Your task to perform on an android device: toggle improve location accuracy Image 0: 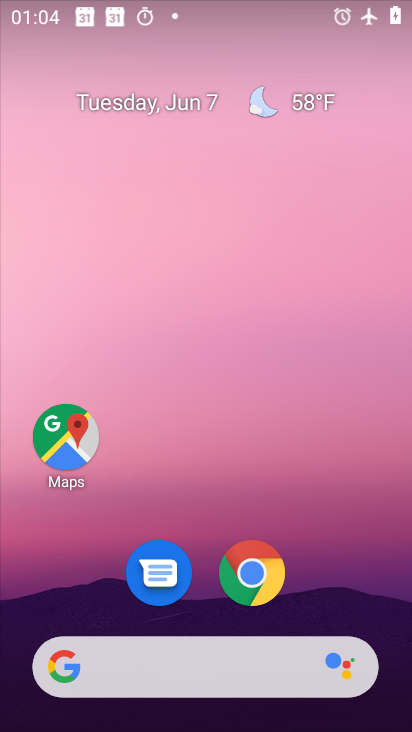
Step 0: press home button
Your task to perform on an android device: toggle improve location accuracy Image 1: 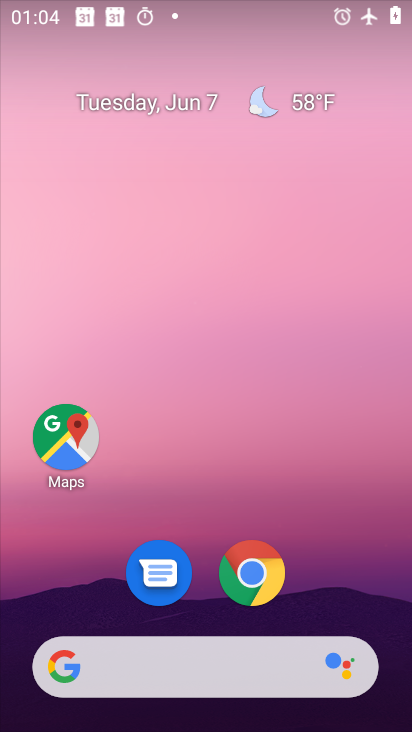
Step 1: drag from (389, 558) to (307, 0)
Your task to perform on an android device: toggle improve location accuracy Image 2: 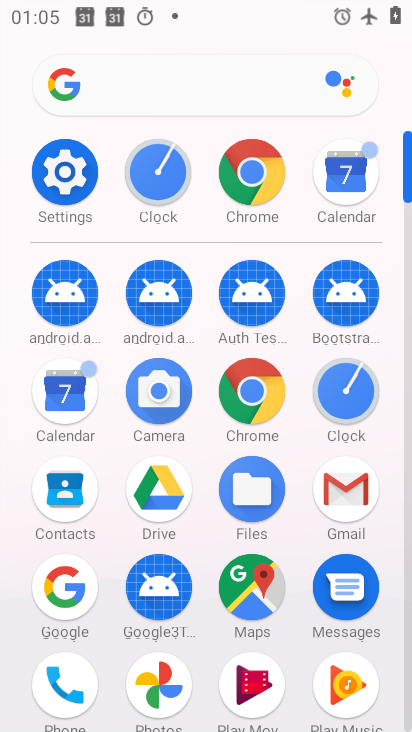
Step 2: click (47, 178)
Your task to perform on an android device: toggle improve location accuracy Image 3: 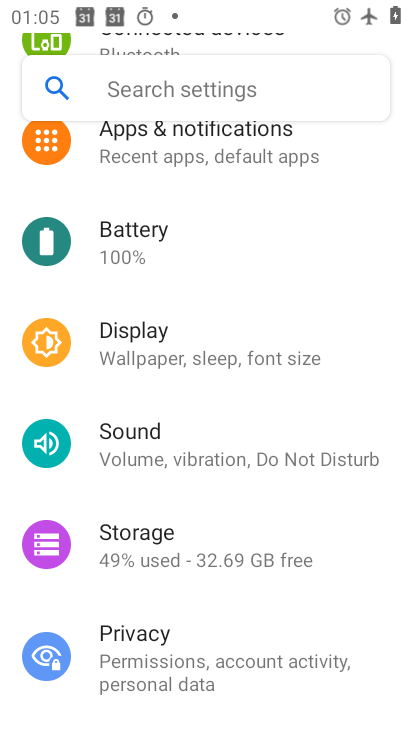
Step 3: drag from (195, 611) to (317, 83)
Your task to perform on an android device: toggle improve location accuracy Image 4: 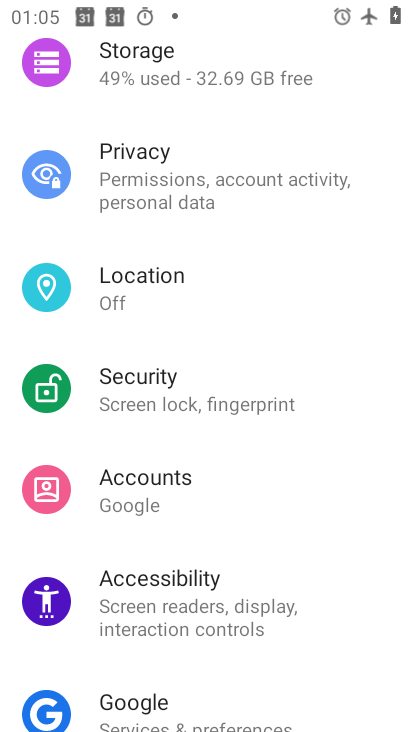
Step 4: click (167, 284)
Your task to perform on an android device: toggle improve location accuracy Image 5: 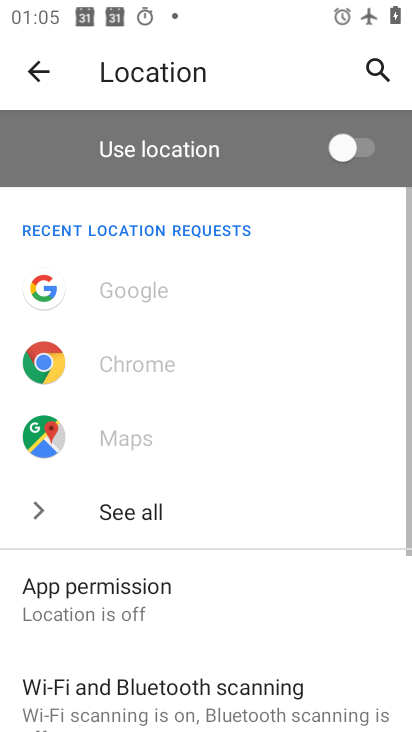
Step 5: drag from (262, 582) to (217, 171)
Your task to perform on an android device: toggle improve location accuracy Image 6: 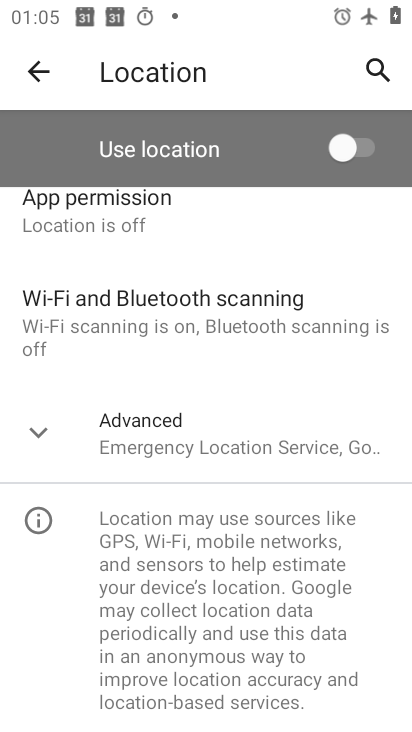
Step 6: click (212, 430)
Your task to perform on an android device: toggle improve location accuracy Image 7: 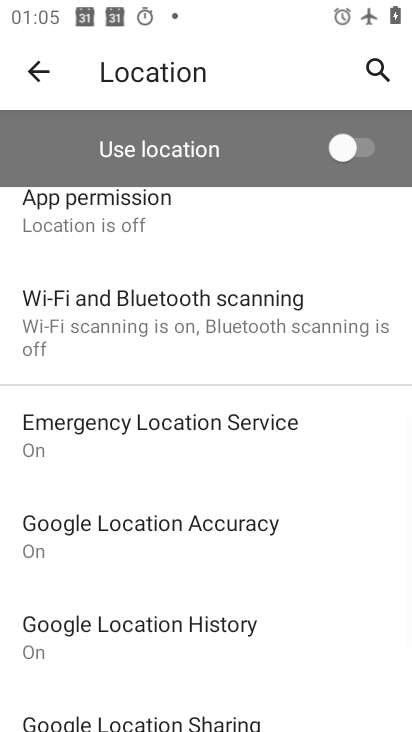
Step 7: click (198, 524)
Your task to perform on an android device: toggle improve location accuracy Image 8: 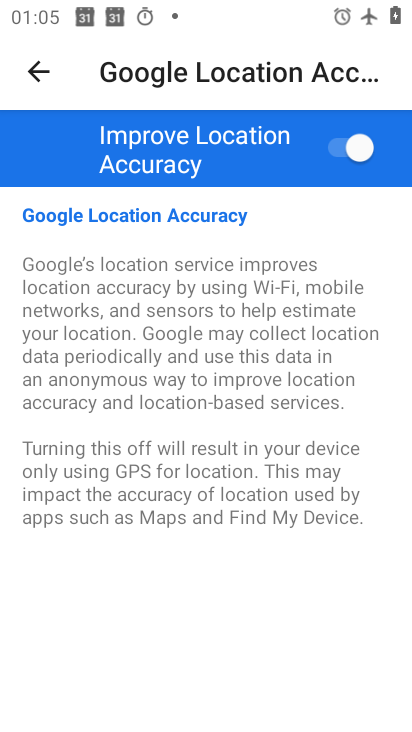
Step 8: click (220, 152)
Your task to perform on an android device: toggle improve location accuracy Image 9: 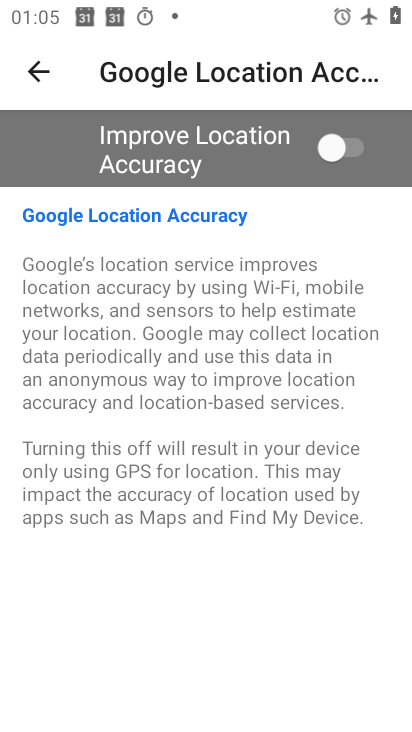
Step 9: task complete